Your task to perform on an android device: open device folders in google photos Image 0: 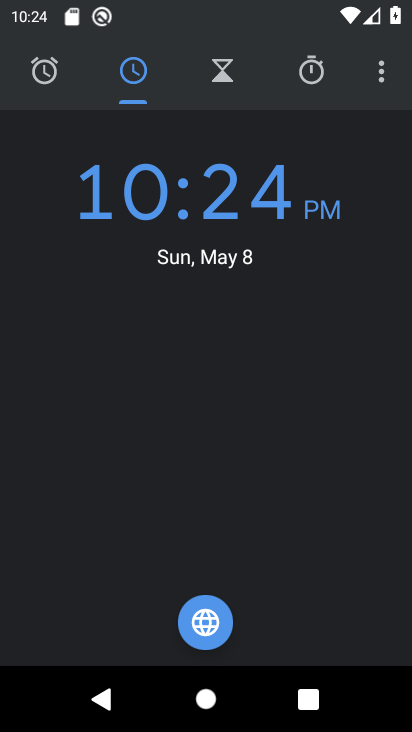
Step 0: drag from (219, 567) to (275, 73)
Your task to perform on an android device: open device folders in google photos Image 1: 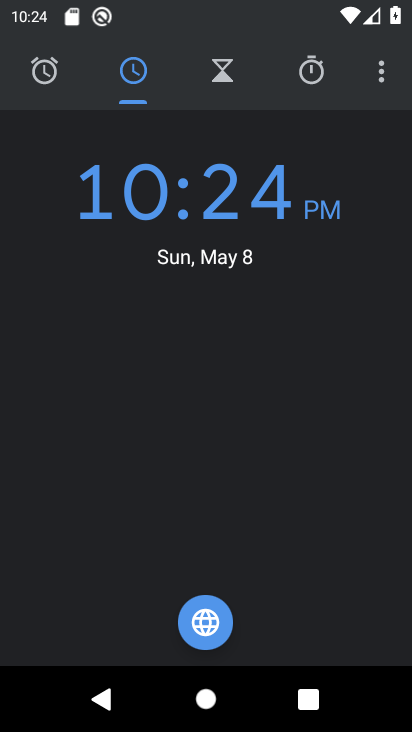
Step 1: press home button
Your task to perform on an android device: open device folders in google photos Image 2: 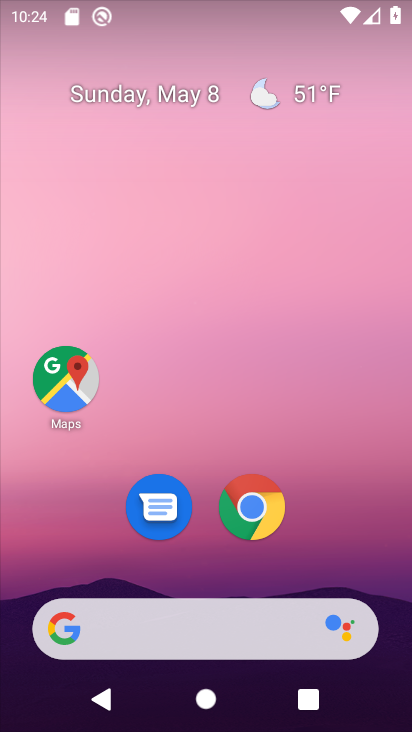
Step 2: drag from (208, 567) to (224, 133)
Your task to perform on an android device: open device folders in google photos Image 3: 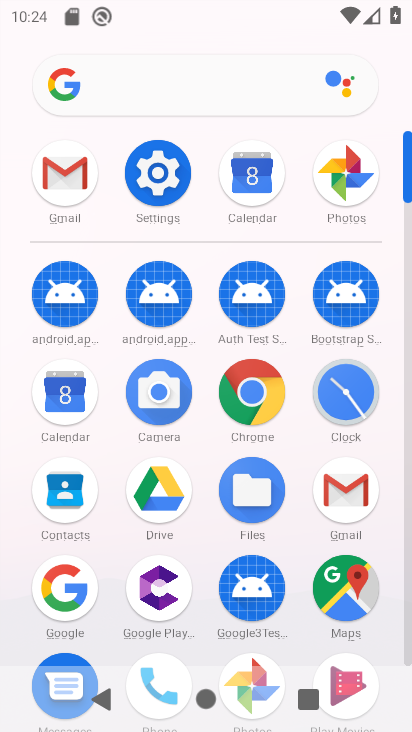
Step 3: click (341, 484)
Your task to perform on an android device: open device folders in google photos Image 4: 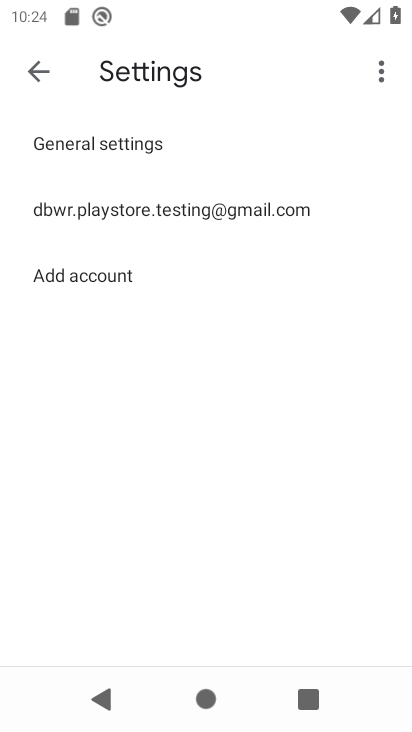
Step 4: press home button
Your task to perform on an android device: open device folders in google photos Image 5: 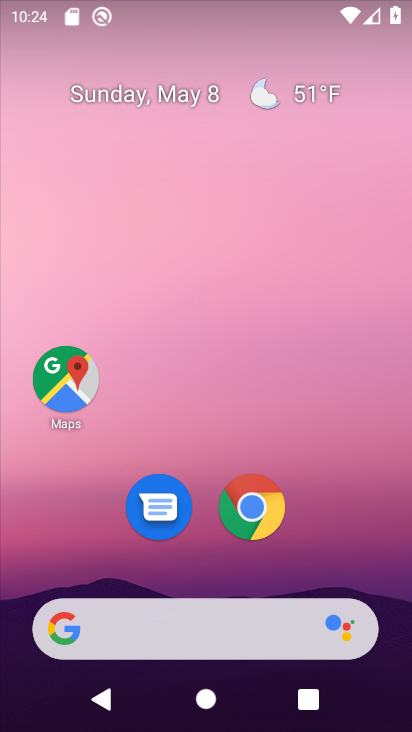
Step 5: drag from (212, 559) to (240, 43)
Your task to perform on an android device: open device folders in google photos Image 6: 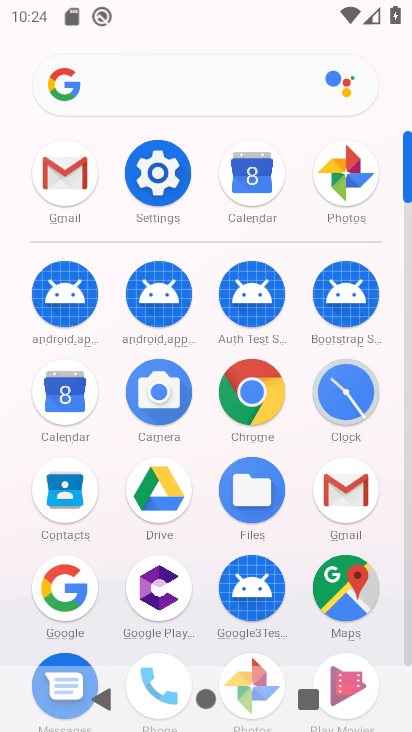
Step 6: drag from (202, 546) to (235, 122)
Your task to perform on an android device: open device folders in google photos Image 7: 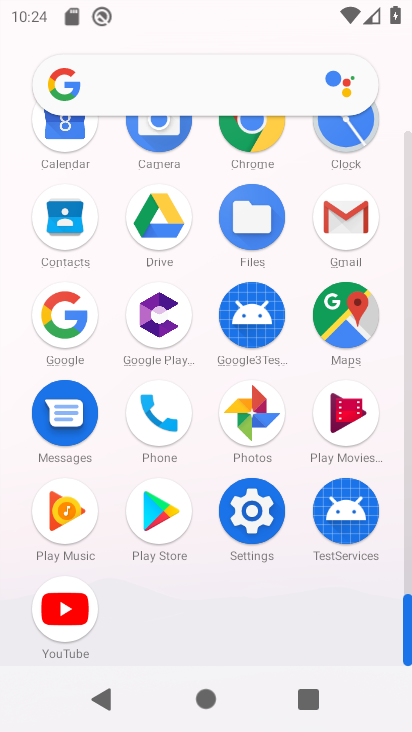
Step 7: click (250, 409)
Your task to perform on an android device: open device folders in google photos Image 8: 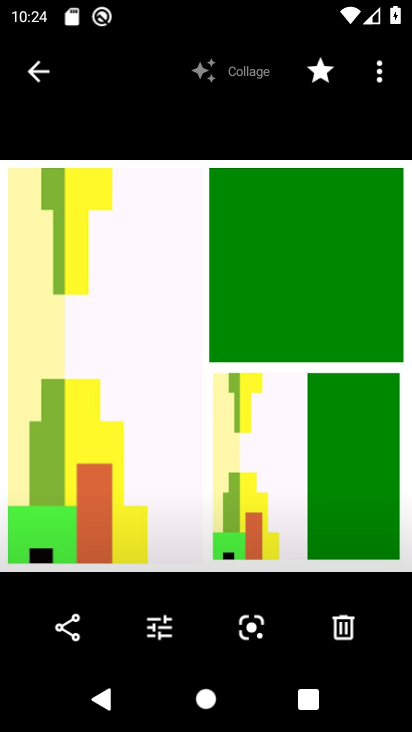
Step 8: click (42, 76)
Your task to perform on an android device: open device folders in google photos Image 9: 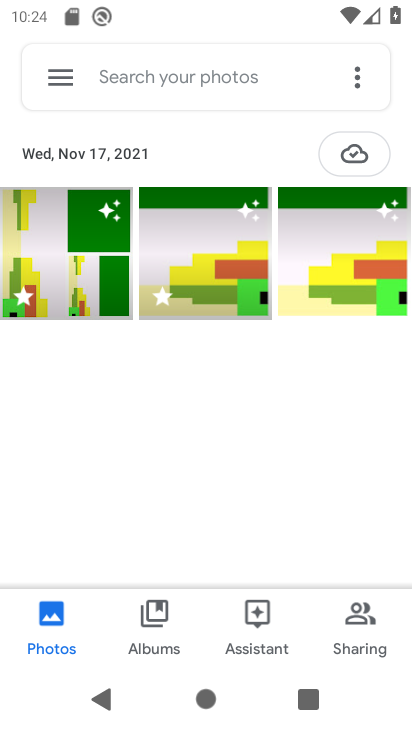
Step 9: click (61, 71)
Your task to perform on an android device: open device folders in google photos Image 10: 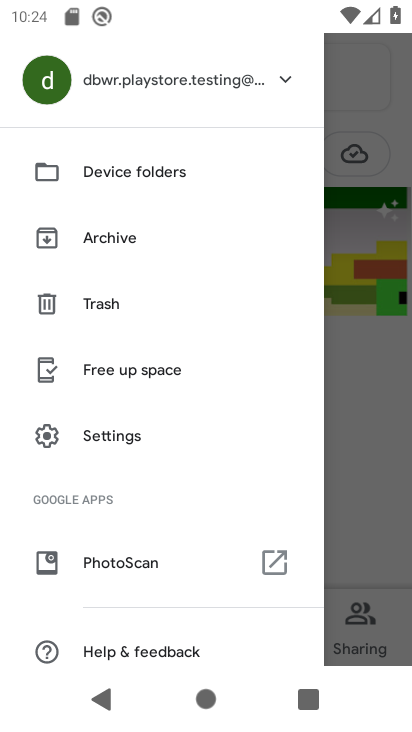
Step 10: click (195, 167)
Your task to perform on an android device: open device folders in google photos Image 11: 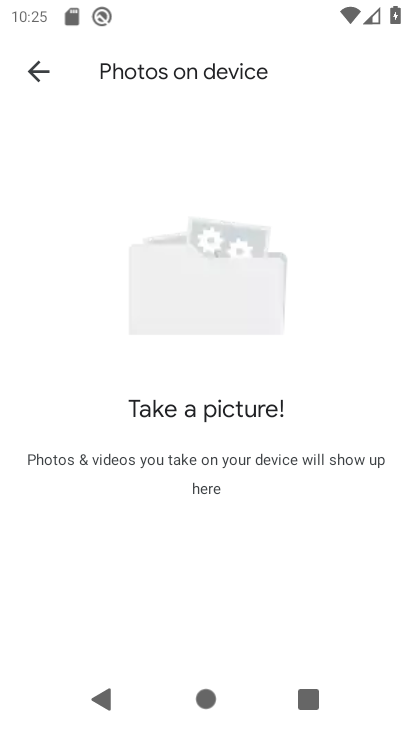
Step 11: task complete